Your task to perform on an android device: Open Google Chrome and click the shortcut for Amazon.com Image 0: 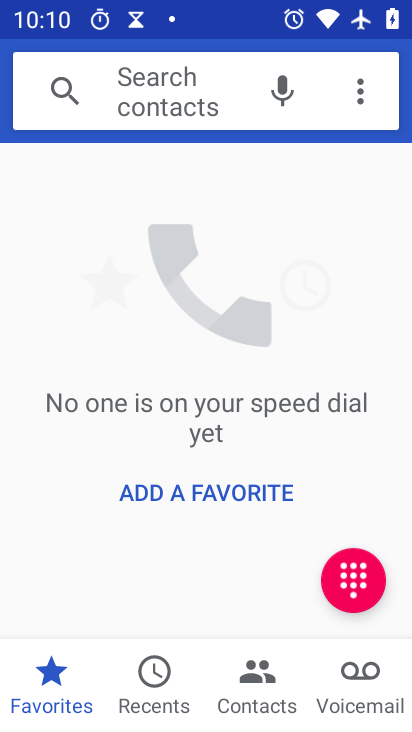
Step 0: press home button
Your task to perform on an android device: Open Google Chrome and click the shortcut for Amazon.com Image 1: 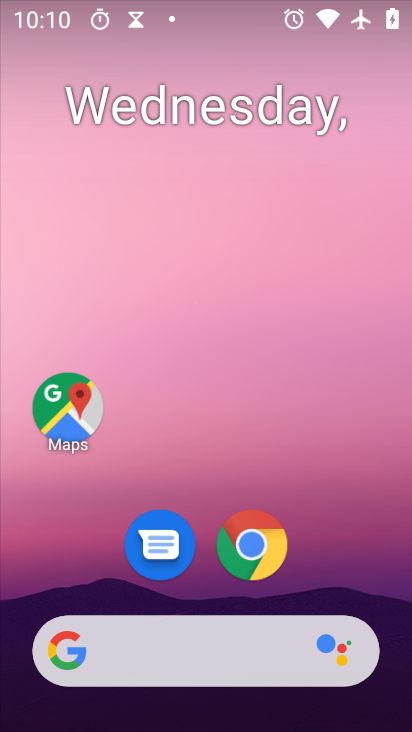
Step 1: click (253, 561)
Your task to perform on an android device: Open Google Chrome and click the shortcut for Amazon.com Image 2: 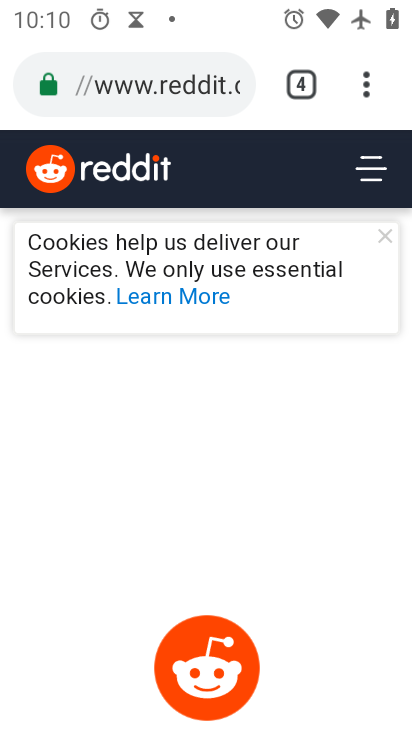
Step 2: drag from (369, 87) to (132, 168)
Your task to perform on an android device: Open Google Chrome and click the shortcut for Amazon.com Image 3: 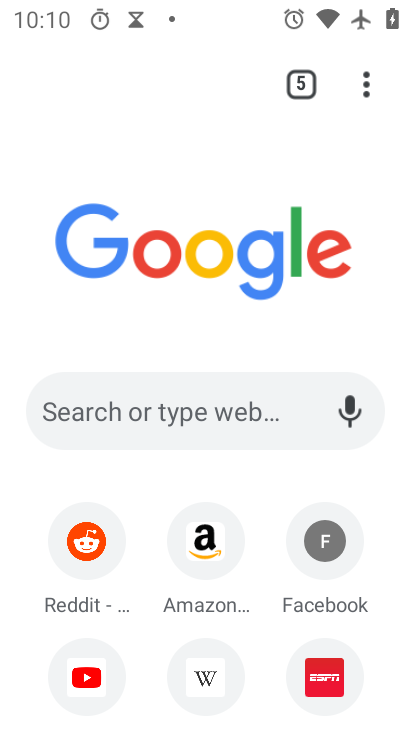
Step 3: click (218, 546)
Your task to perform on an android device: Open Google Chrome and click the shortcut for Amazon.com Image 4: 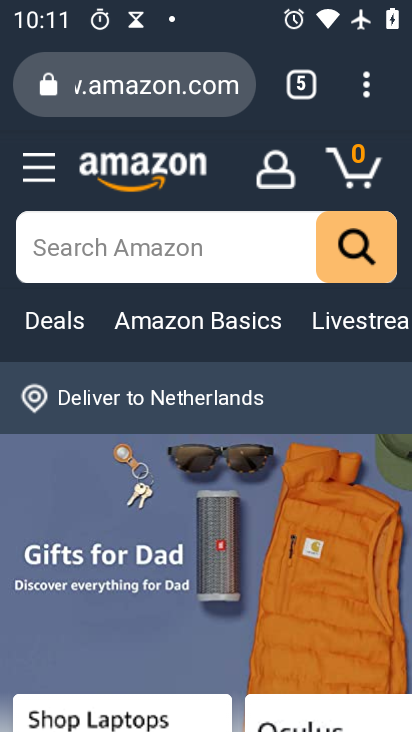
Step 4: task complete